Your task to perform on an android device: move an email to a new category in the gmail app Image 0: 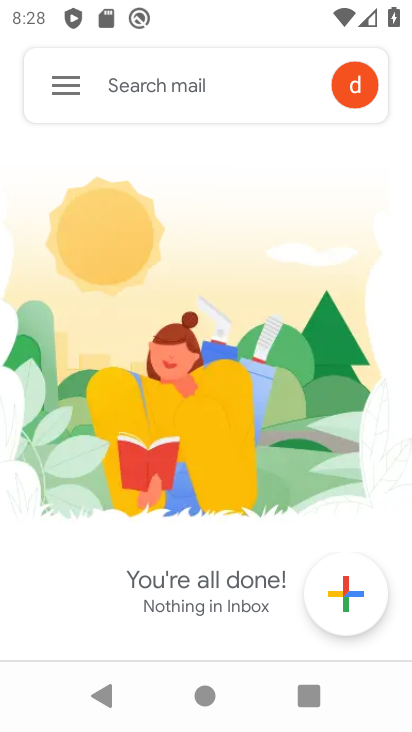
Step 0: press home button
Your task to perform on an android device: move an email to a new category in the gmail app Image 1: 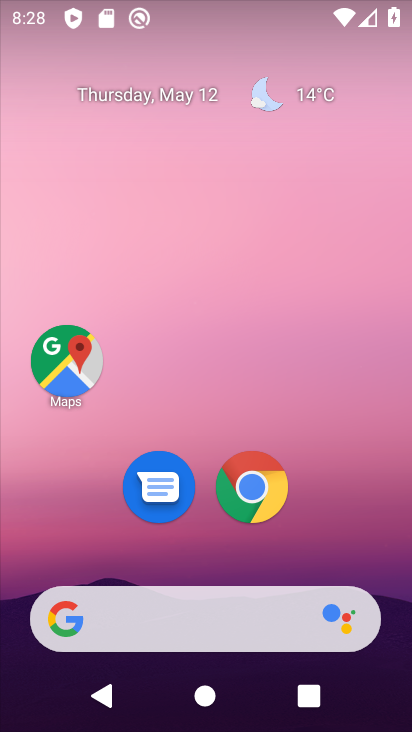
Step 1: drag from (28, 566) to (210, 176)
Your task to perform on an android device: move an email to a new category in the gmail app Image 2: 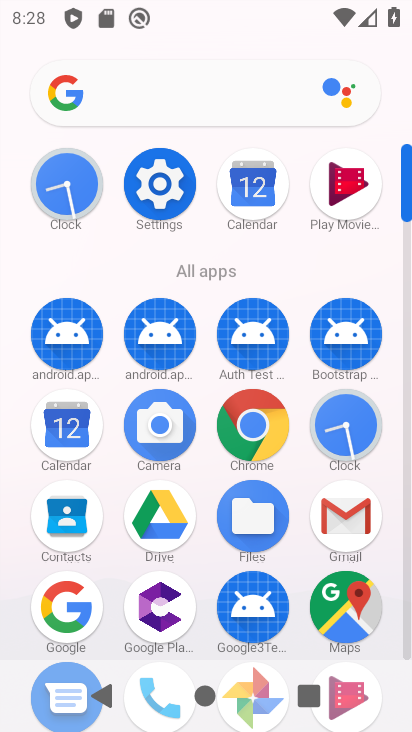
Step 2: click (334, 513)
Your task to perform on an android device: move an email to a new category in the gmail app Image 3: 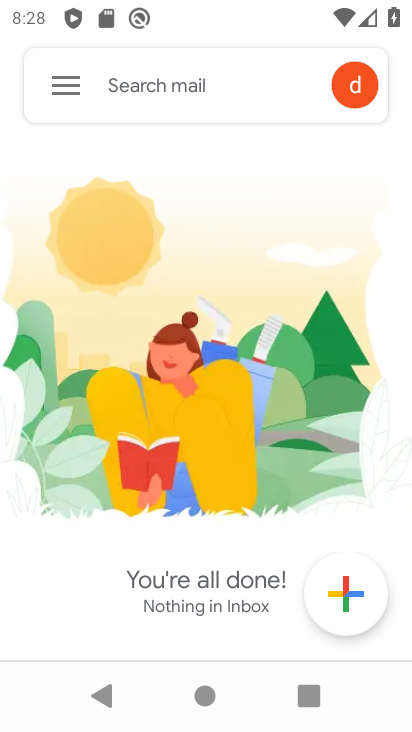
Step 3: press home button
Your task to perform on an android device: move an email to a new category in the gmail app Image 4: 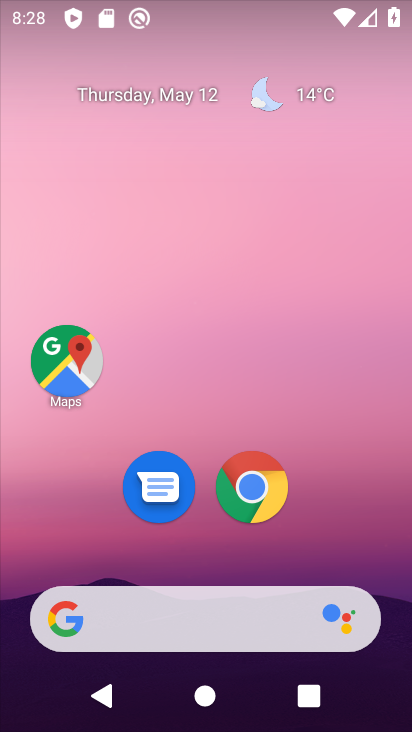
Step 4: drag from (41, 555) to (211, 153)
Your task to perform on an android device: move an email to a new category in the gmail app Image 5: 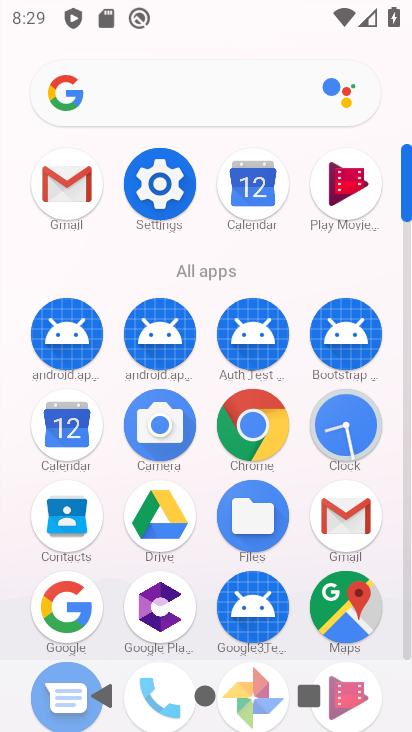
Step 5: click (335, 528)
Your task to perform on an android device: move an email to a new category in the gmail app Image 6: 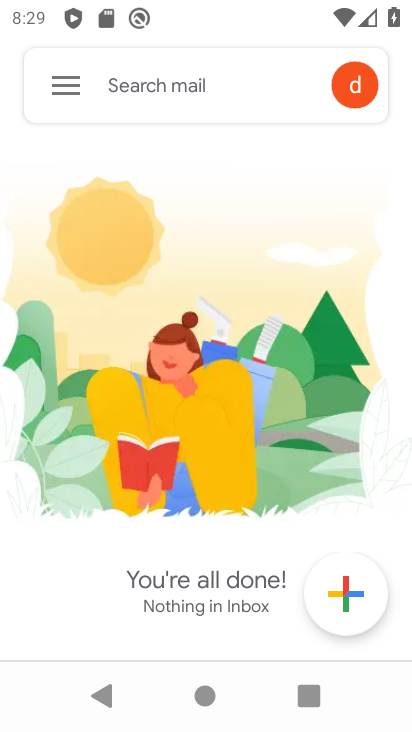
Step 6: click (58, 95)
Your task to perform on an android device: move an email to a new category in the gmail app Image 7: 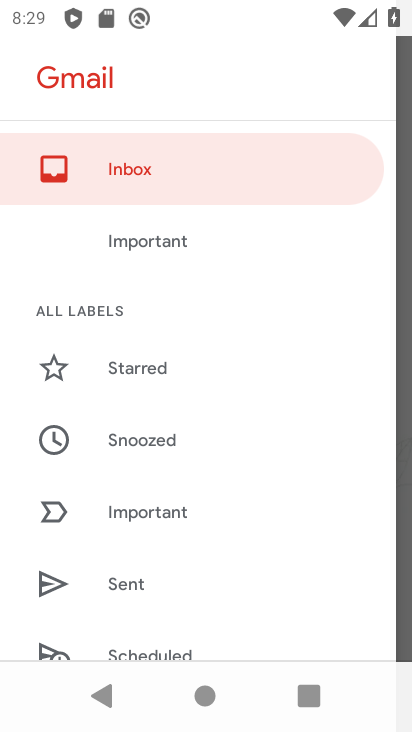
Step 7: click (152, 173)
Your task to perform on an android device: move an email to a new category in the gmail app Image 8: 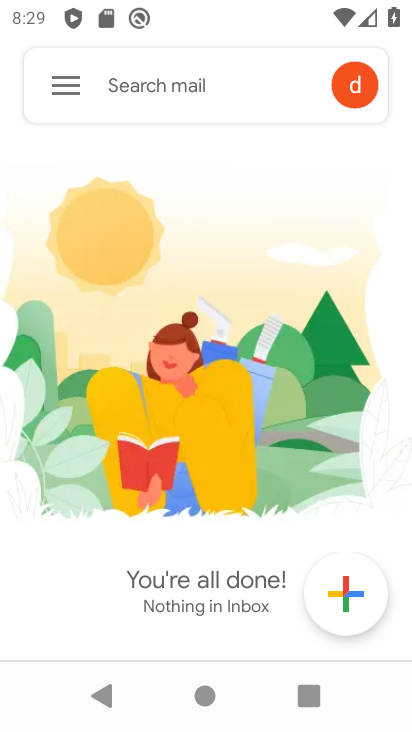
Step 8: task complete